Your task to perform on an android device: change the upload size in google photos Image 0: 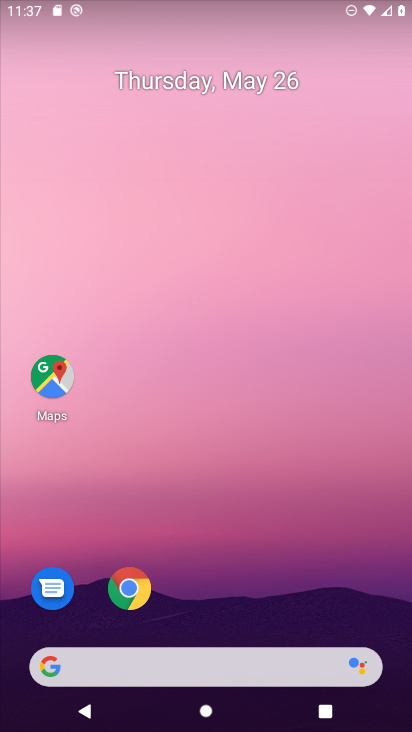
Step 0: drag from (387, 609) to (364, 36)
Your task to perform on an android device: change the upload size in google photos Image 1: 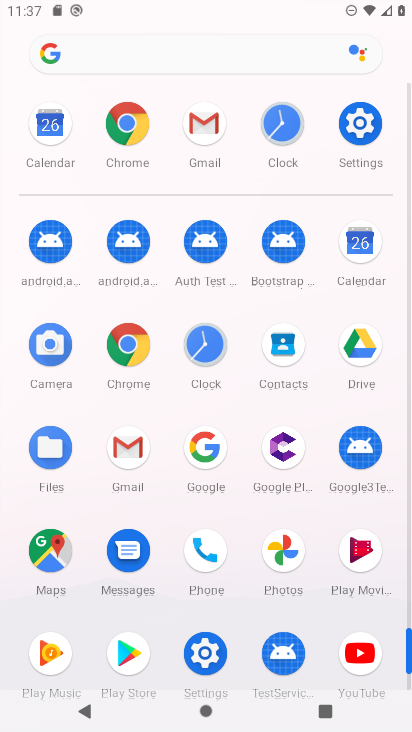
Step 1: click (284, 549)
Your task to perform on an android device: change the upload size in google photos Image 2: 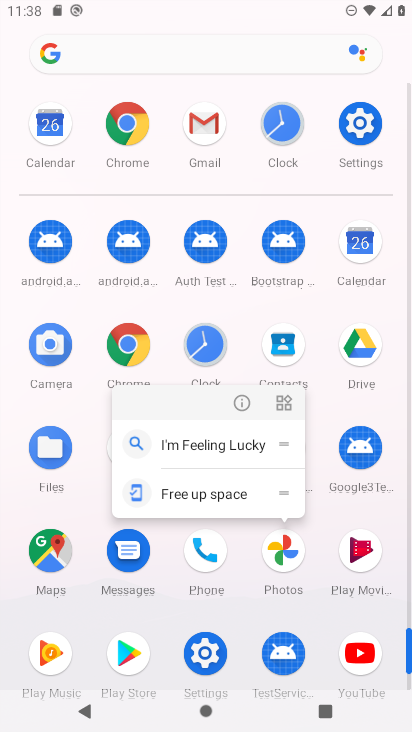
Step 2: click (284, 549)
Your task to perform on an android device: change the upload size in google photos Image 3: 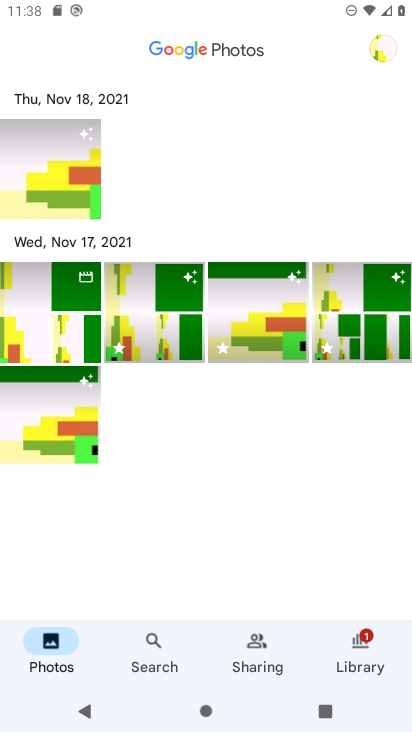
Step 3: click (383, 50)
Your task to perform on an android device: change the upload size in google photos Image 4: 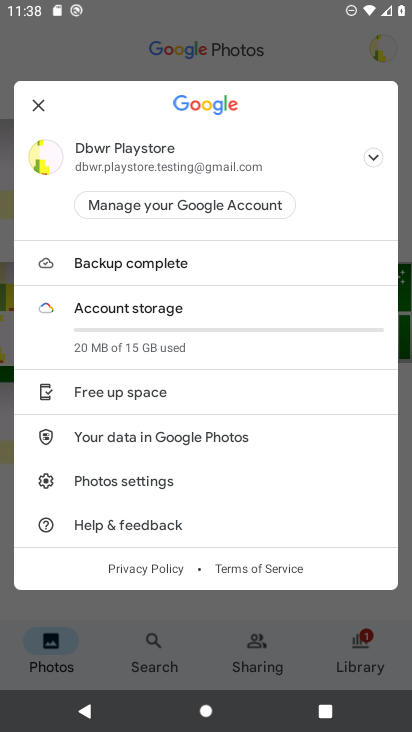
Step 4: click (169, 487)
Your task to perform on an android device: change the upload size in google photos Image 5: 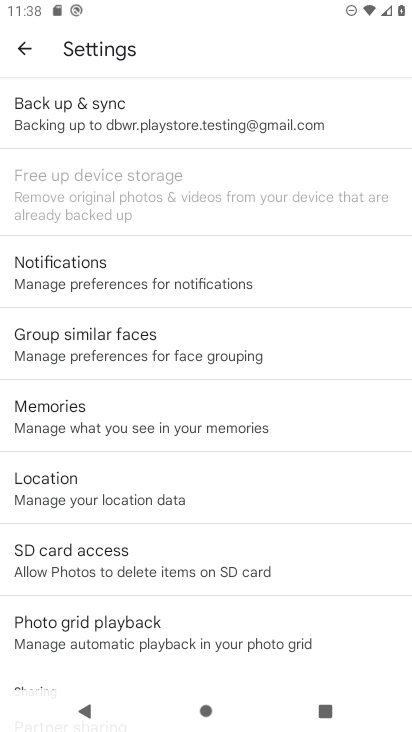
Step 5: click (132, 111)
Your task to perform on an android device: change the upload size in google photos Image 6: 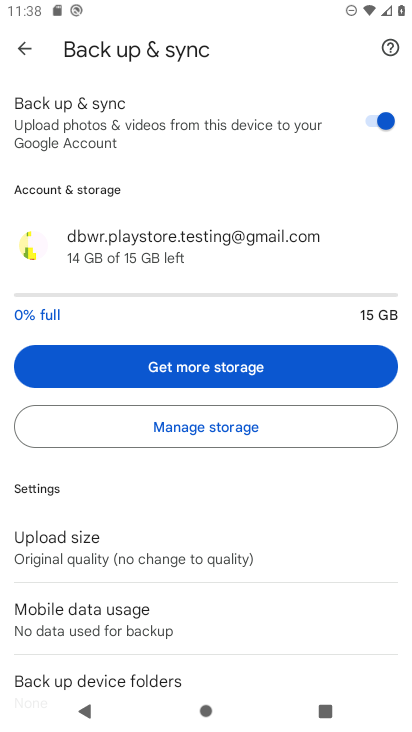
Step 6: click (48, 541)
Your task to perform on an android device: change the upload size in google photos Image 7: 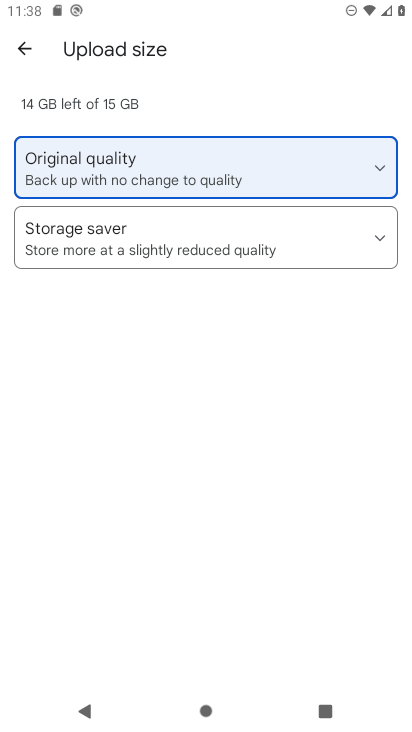
Step 7: click (320, 233)
Your task to perform on an android device: change the upload size in google photos Image 8: 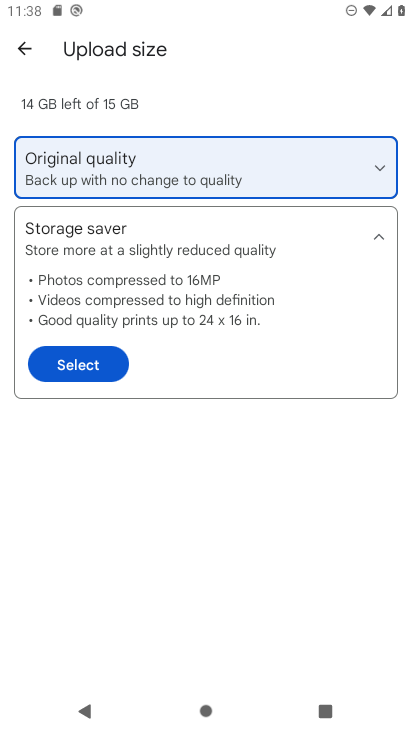
Step 8: click (63, 364)
Your task to perform on an android device: change the upload size in google photos Image 9: 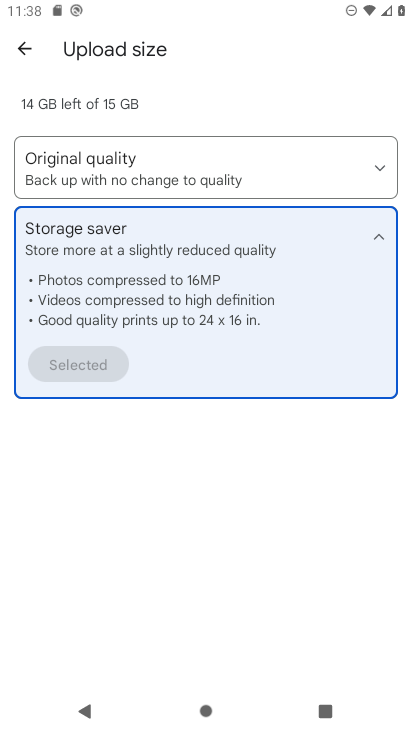
Step 9: task complete